Your task to perform on an android device: When is my next meeting? Image 0: 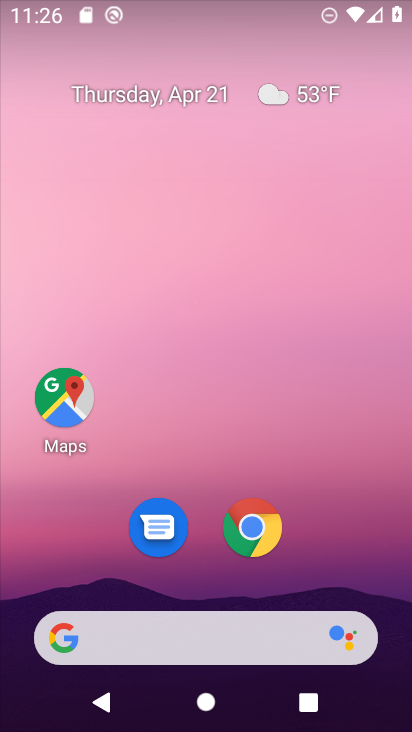
Step 0: drag from (369, 554) to (363, 236)
Your task to perform on an android device: When is my next meeting? Image 1: 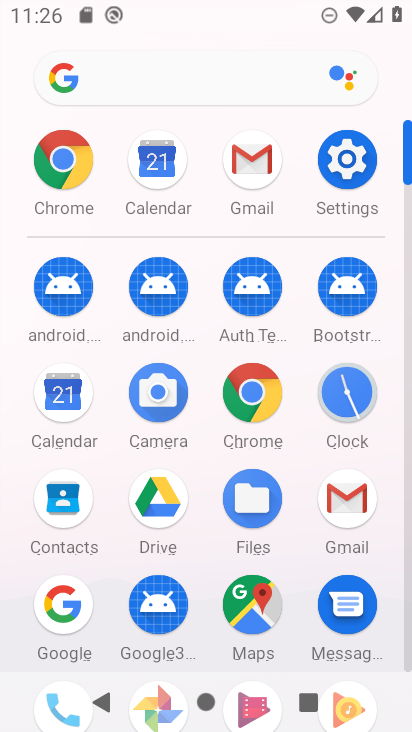
Step 1: click (67, 401)
Your task to perform on an android device: When is my next meeting? Image 2: 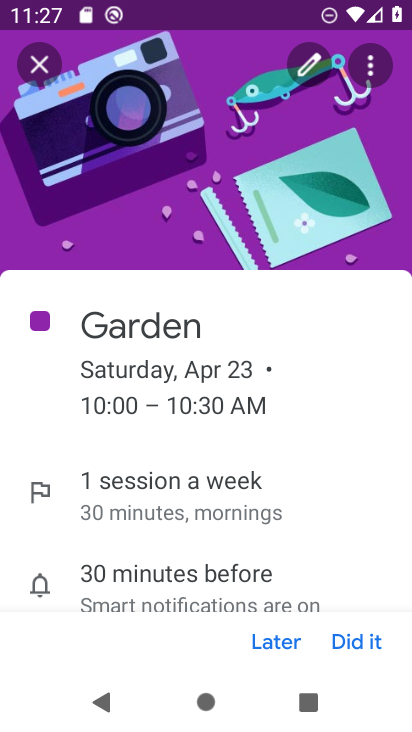
Step 2: task complete